Your task to perform on an android device: Open internet settings Image 0: 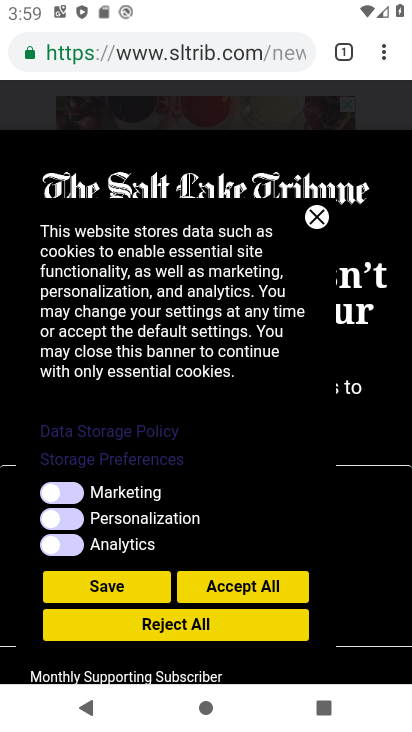
Step 0: click (318, 212)
Your task to perform on an android device: Open internet settings Image 1: 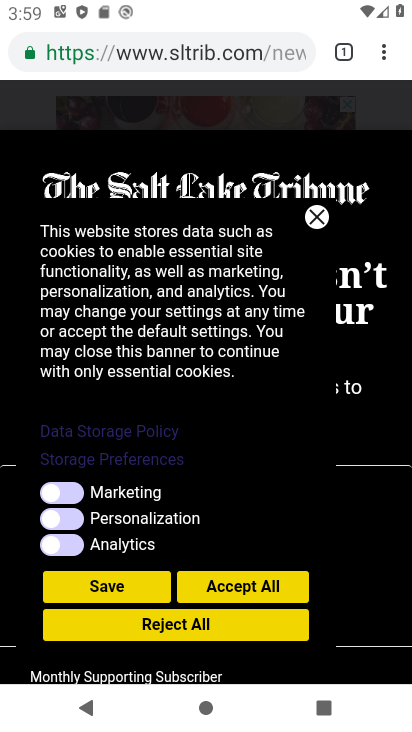
Step 1: press back button
Your task to perform on an android device: Open internet settings Image 2: 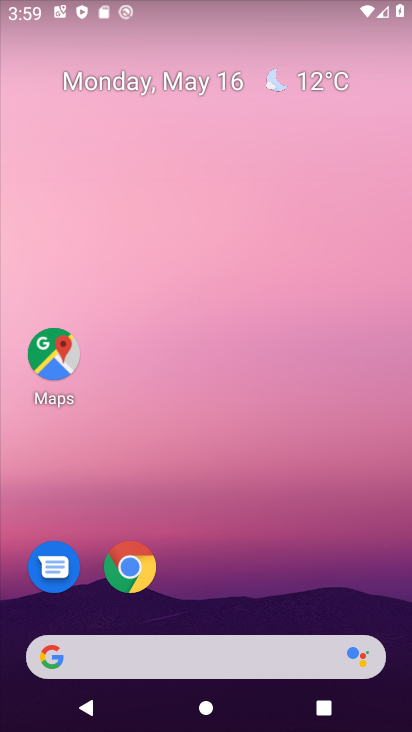
Step 2: drag from (276, 641) to (234, 86)
Your task to perform on an android device: Open internet settings Image 3: 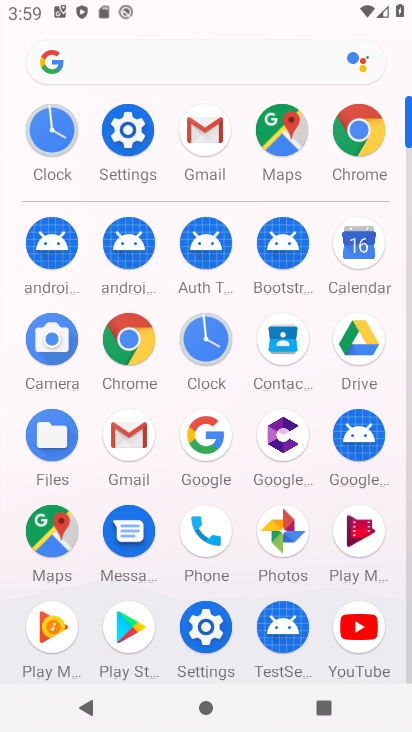
Step 3: click (124, 125)
Your task to perform on an android device: Open internet settings Image 4: 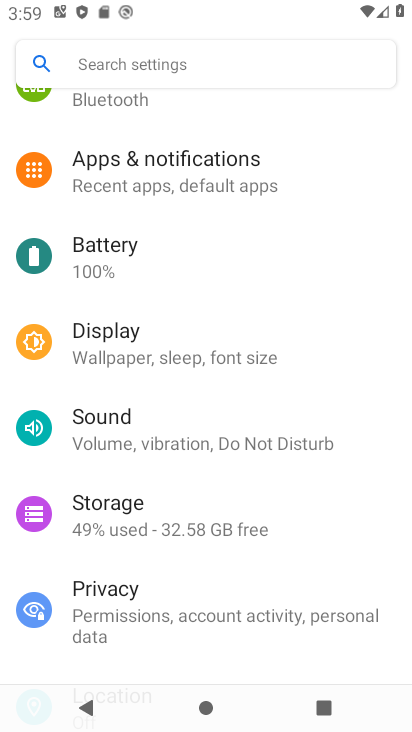
Step 4: drag from (246, 158) to (285, 541)
Your task to perform on an android device: Open internet settings Image 5: 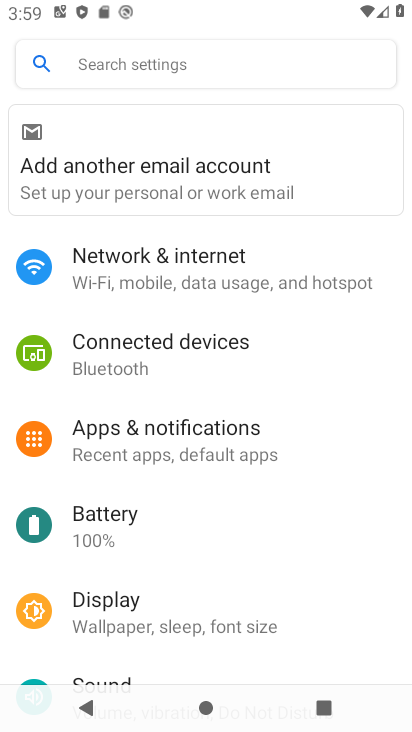
Step 5: click (242, 274)
Your task to perform on an android device: Open internet settings Image 6: 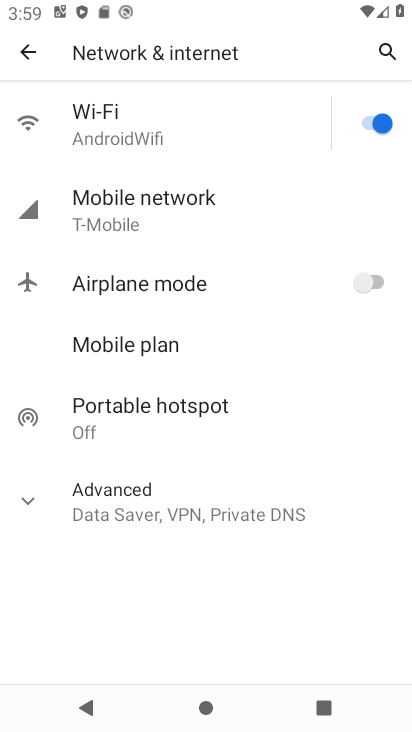
Step 6: click (37, 507)
Your task to perform on an android device: Open internet settings Image 7: 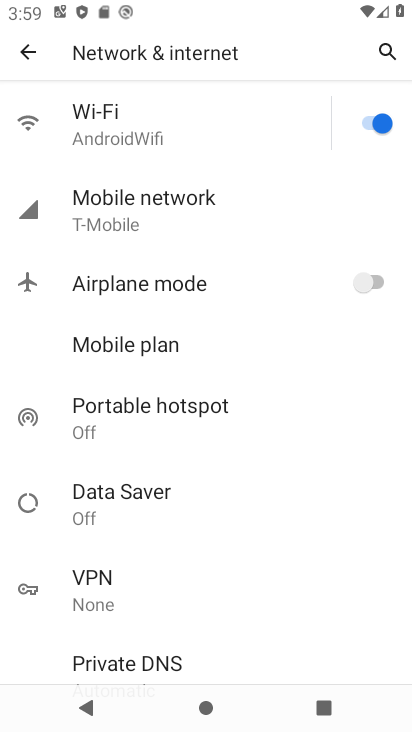
Step 7: task complete